Your task to perform on an android device: Search for "amazon basics triple a" on target, select the first entry, and add it to the cart. Image 0: 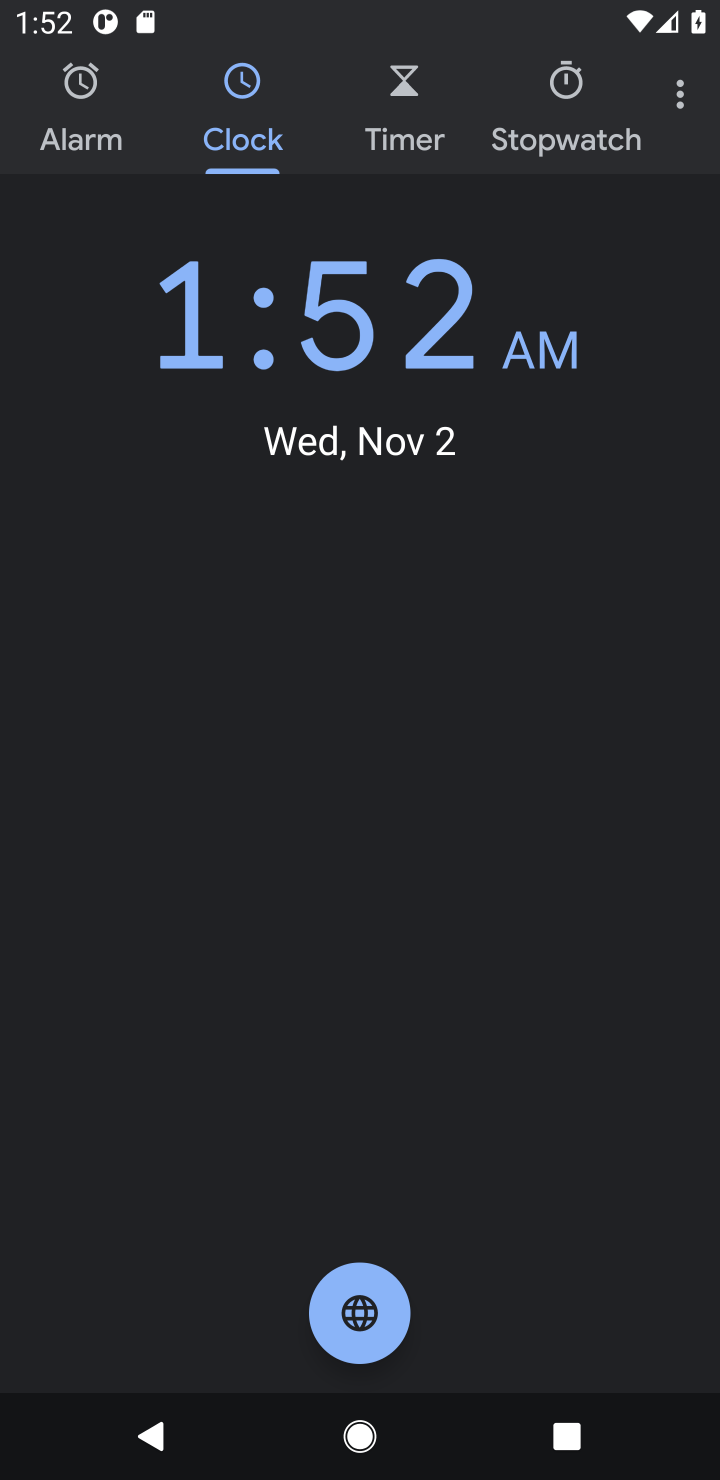
Step 0: press home button
Your task to perform on an android device: Search for "amazon basics triple a" on target, select the first entry, and add it to the cart. Image 1: 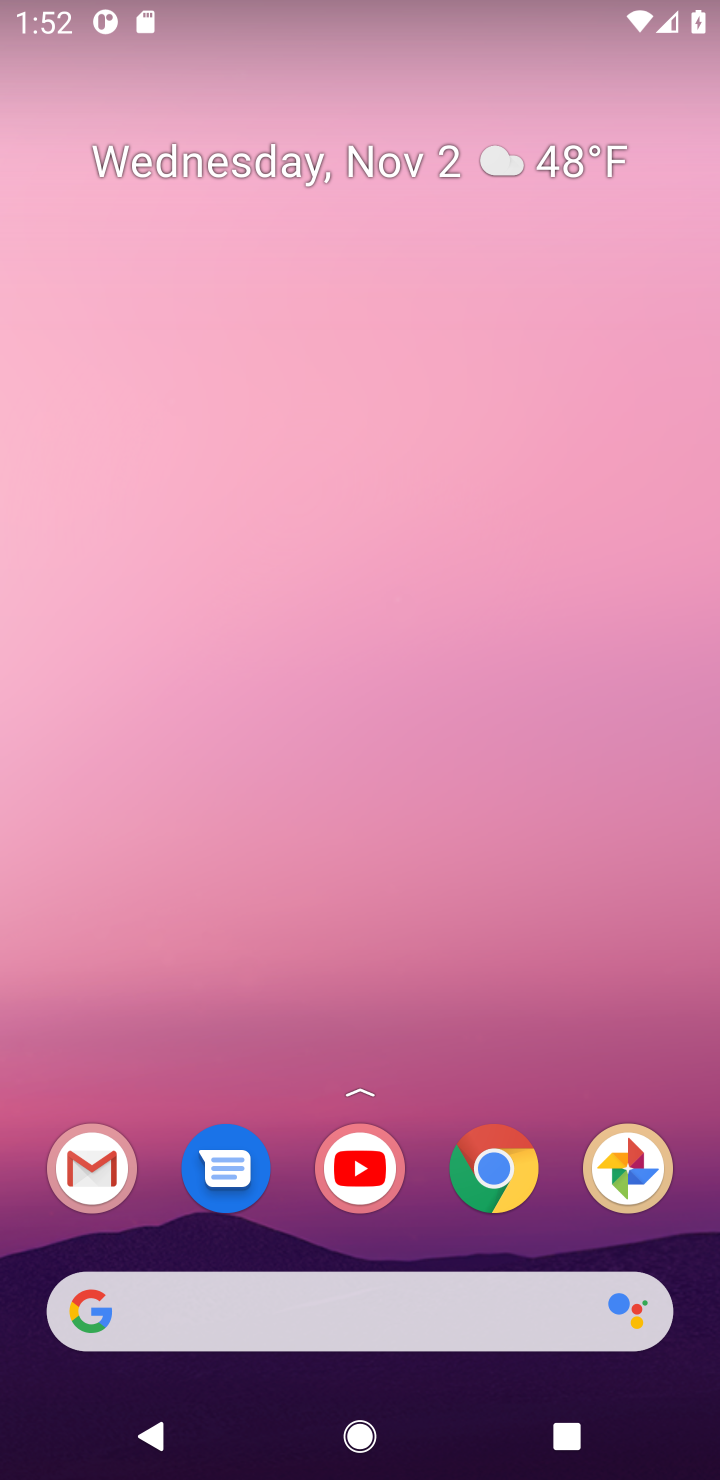
Step 1: click (467, 1292)
Your task to perform on an android device: Search for "amazon basics triple a" on target, select the first entry, and add it to the cart. Image 2: 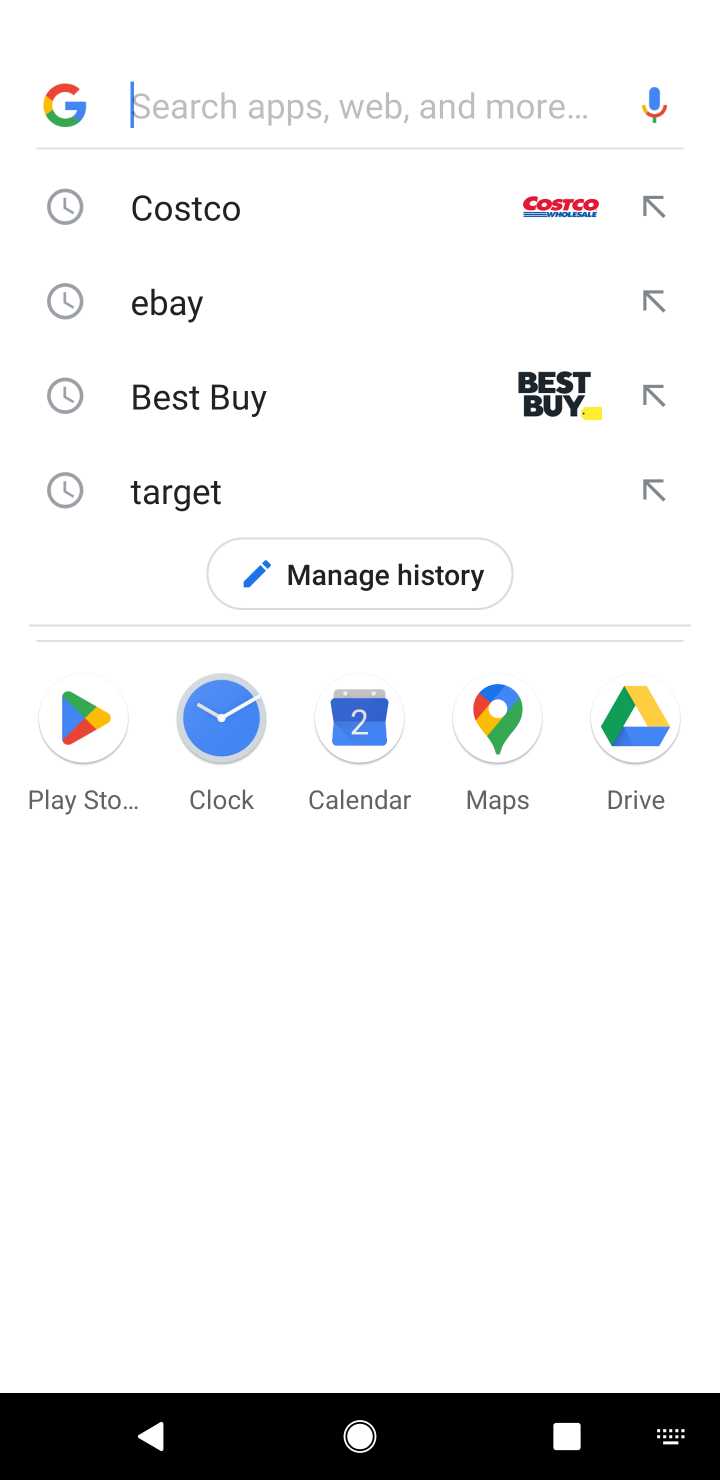
Step 2: drag from (438, 1266) to (344, 1171)
Your task to perform on an android device: Search for "amazon basics triple a" on target, select the first entry, and add it to the cart. Image 3: 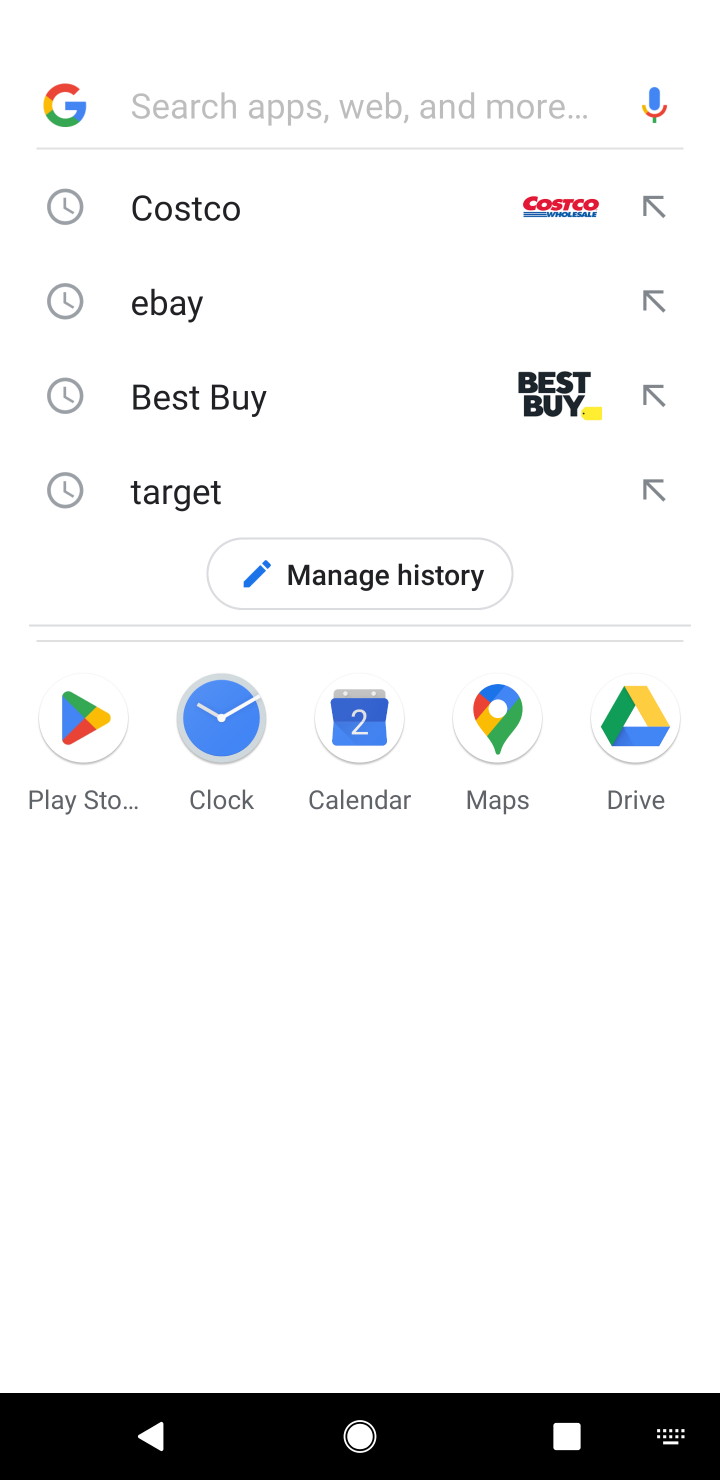
Step 3: type "amazon"
Your task to perform on an android device: Search for "amazon basics triple a" on target, select the first entry, and add it to the cart. Image 4: 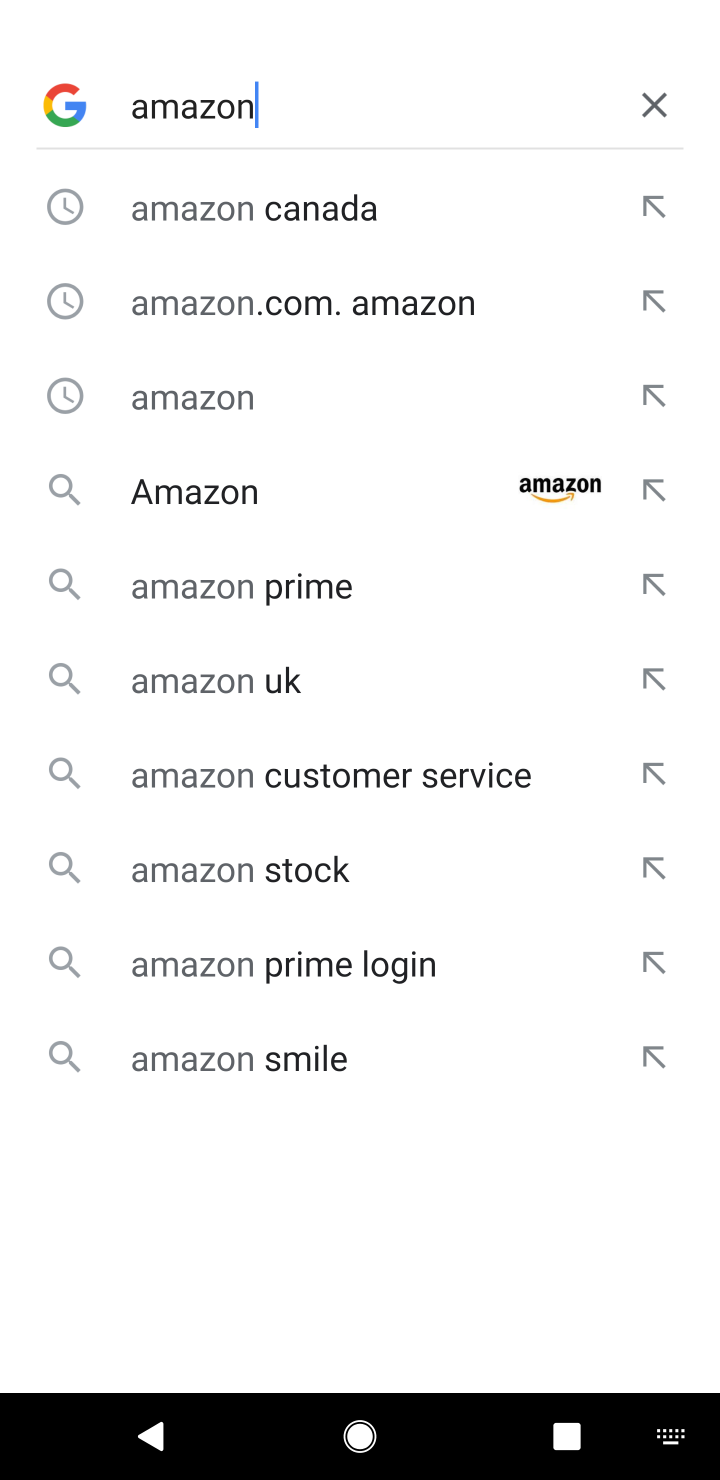
Step 4: click (338, 471)
Your task to perform on an android device: Search for "amazon basics triple a" on target, select the first entry, and add it to the cart. Image 5: 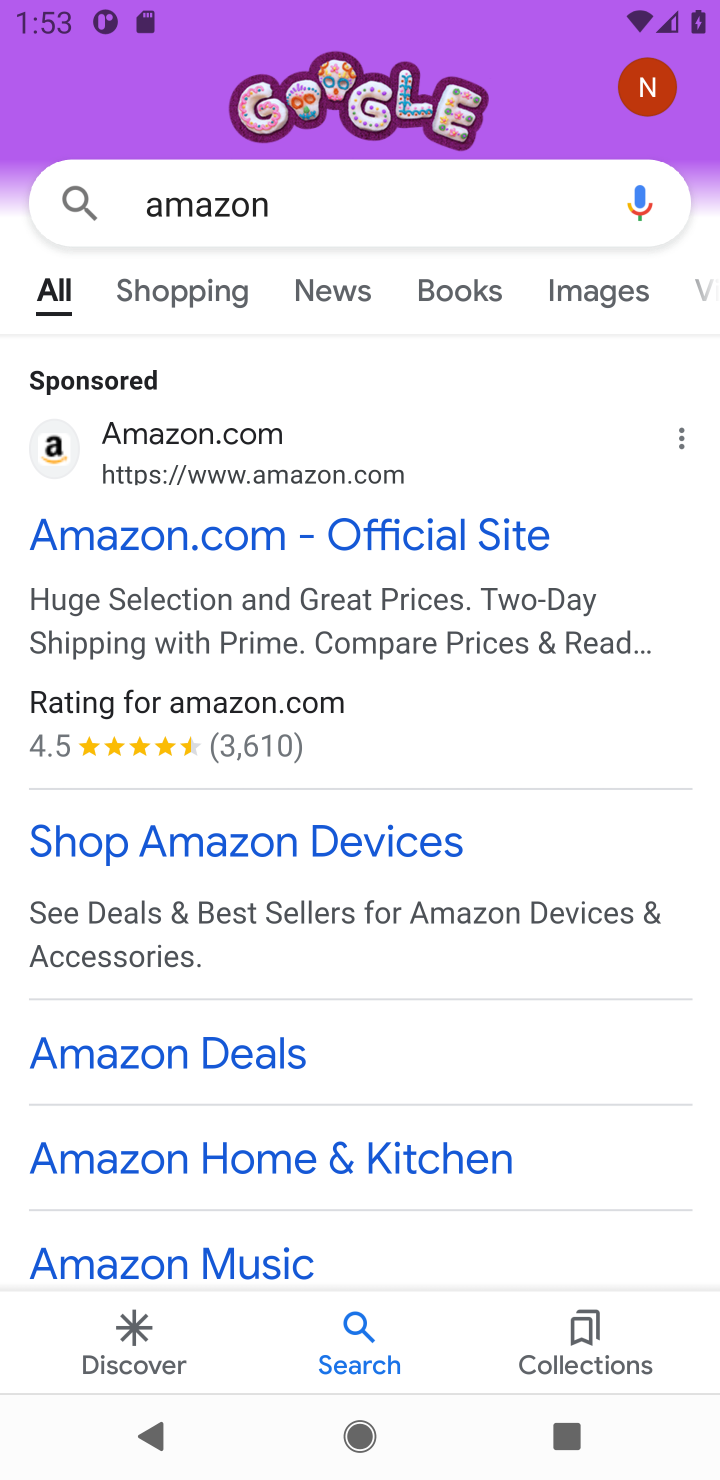
Step 5: click (243, 431)
Your task to perform on an android device: Search for "amazon basics triple a" on target, select the first entry, and add it to the cart. Image 6: 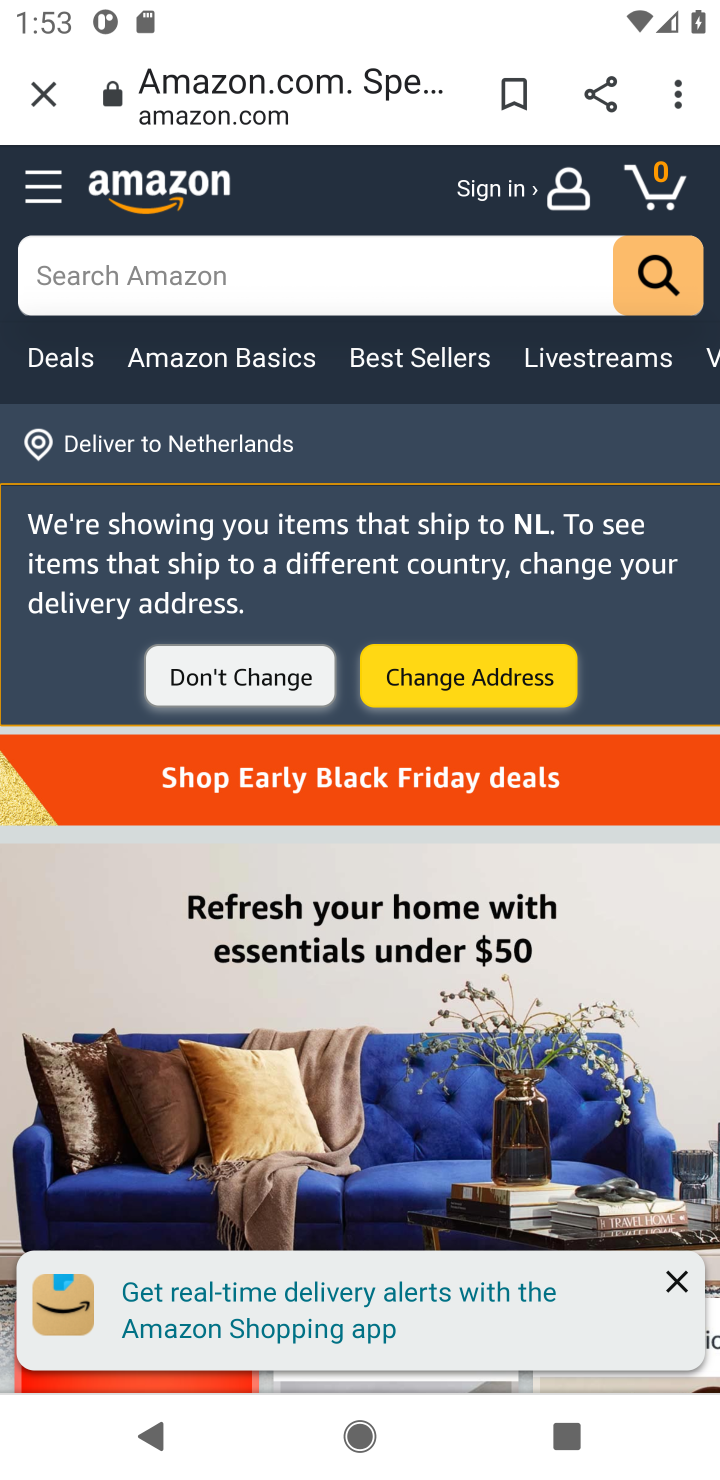
Step 6: click (47, 99)
Your task to perform on an android device: Search for "amazon basics triple a" on target, select the first entry, and add it to the cart. Image 7: 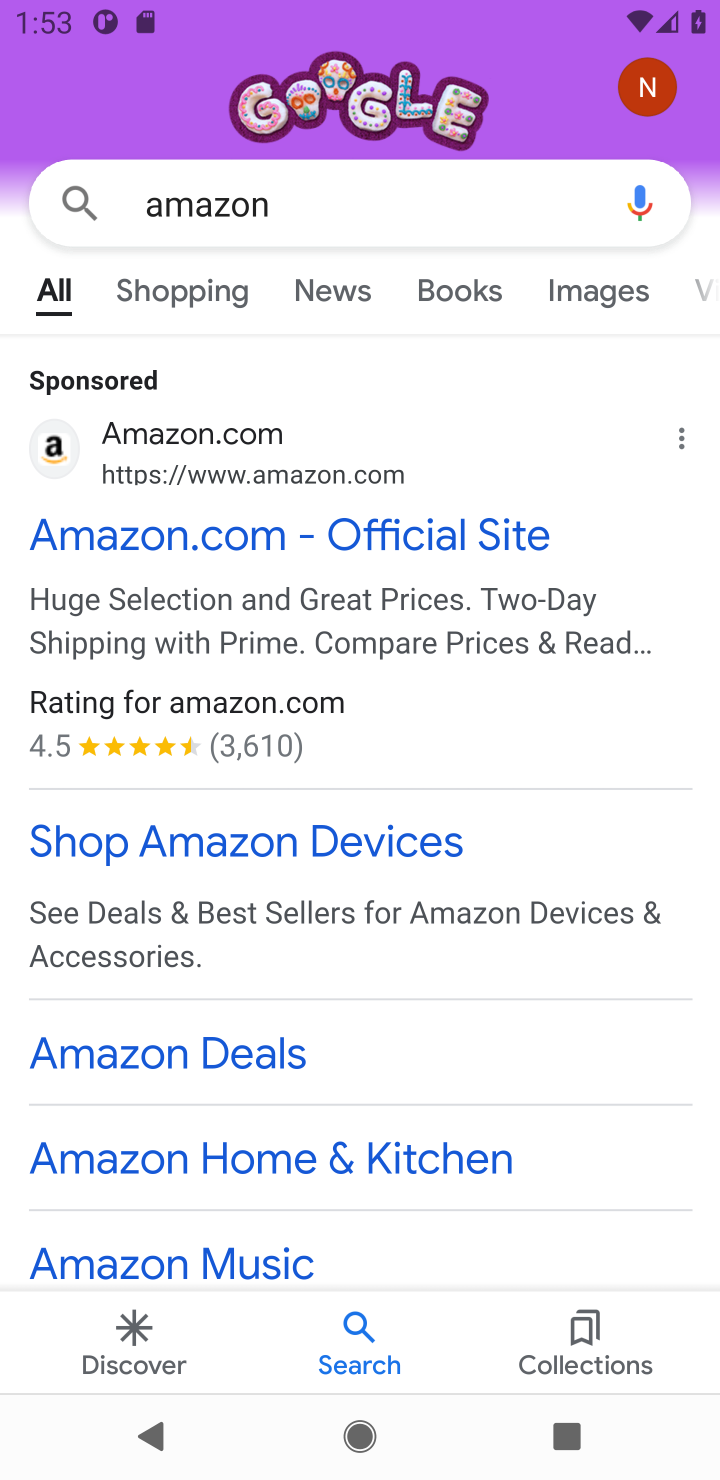
Step 7: click (449, 217)
Your task to perform on an android device: Search for "amazon basics triple a" on target, select the first entry, and add it to the cart. Image 8: 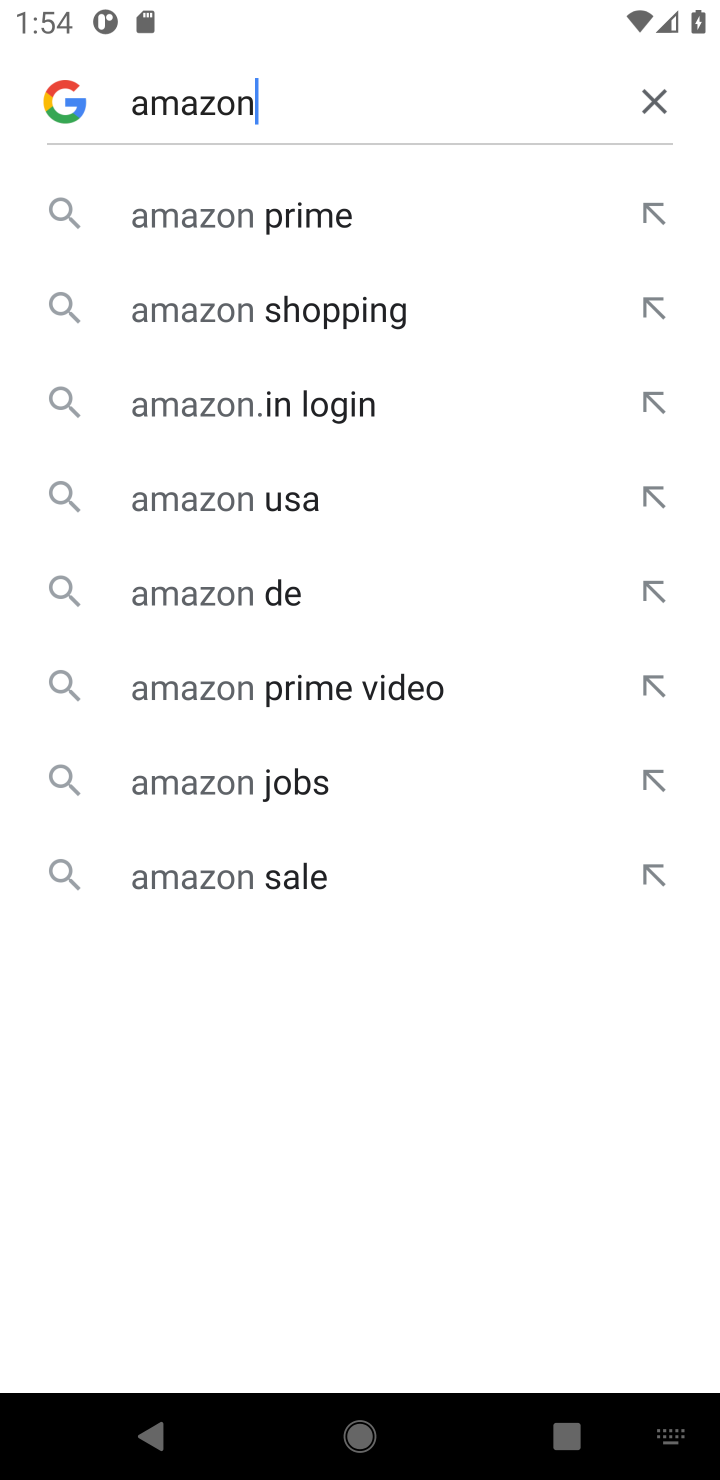
Step 8: click (664, 107)
Your task to perform on an android device: Search for "amazon basics triple a" on target, select the first entry, and add it to the cart. Image 9: 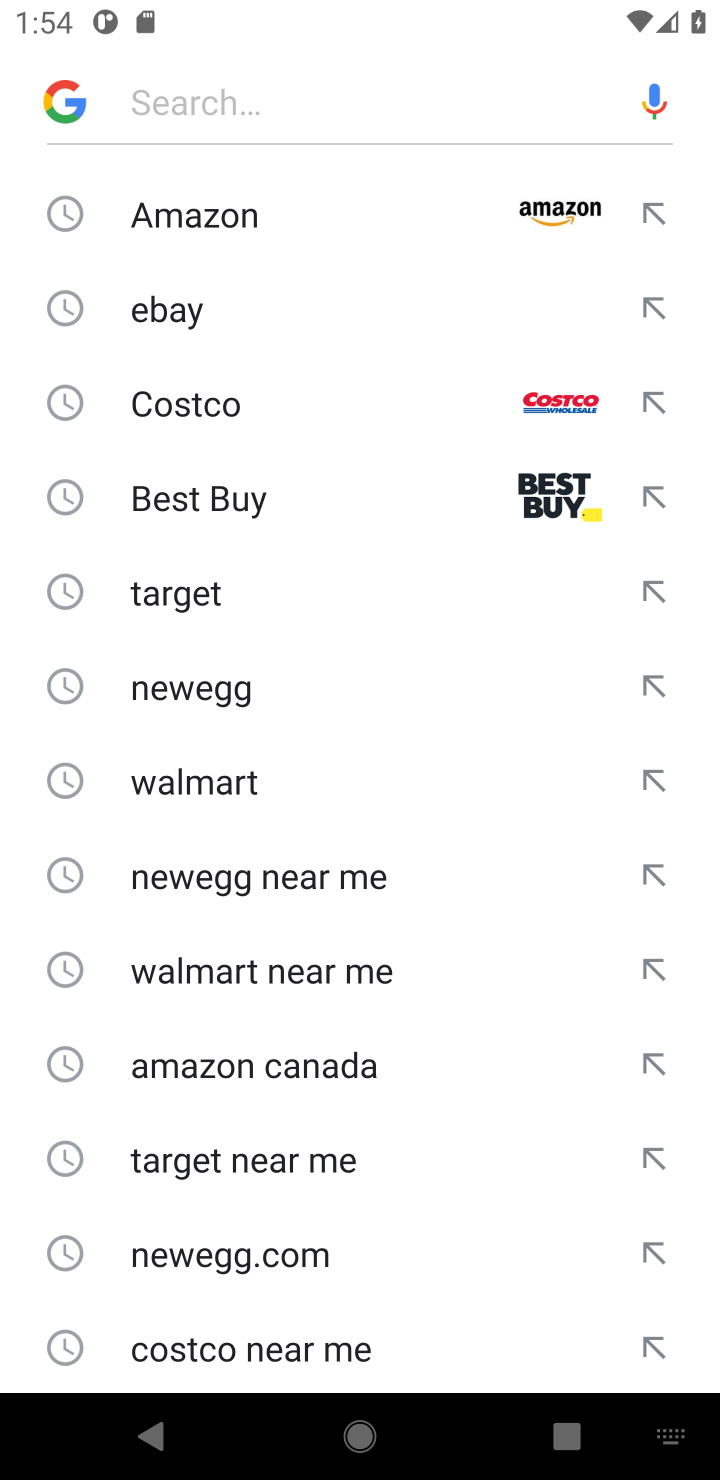
Step 9: type "target"
Your task to perform on an android device: Search for "amazon basics triple a" on target, select the first entry, and add it to the cart. Image 10: 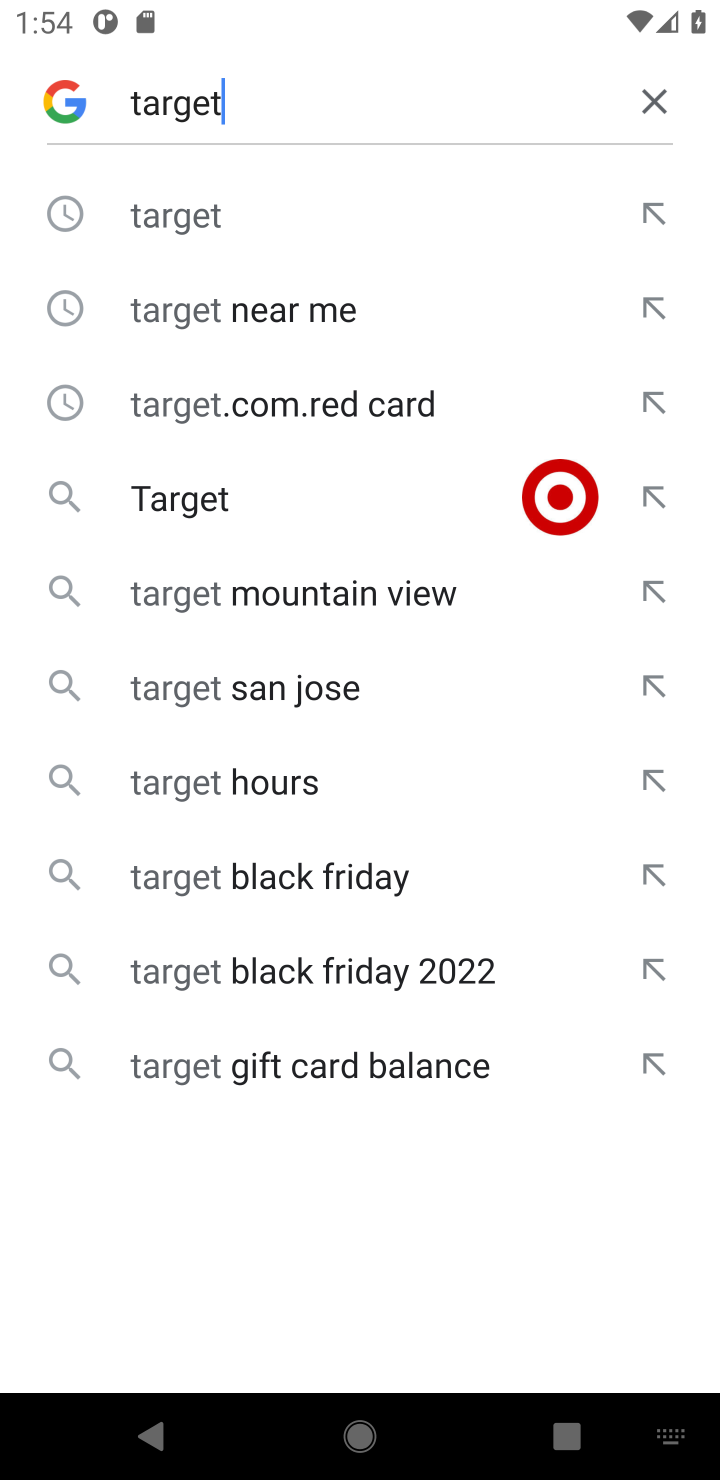
Step 10: click (365, 497)
Your task to perform on an android device: Search for "amazon basics triple a" on target, select the first entry, and add it to the cart. Image 11: 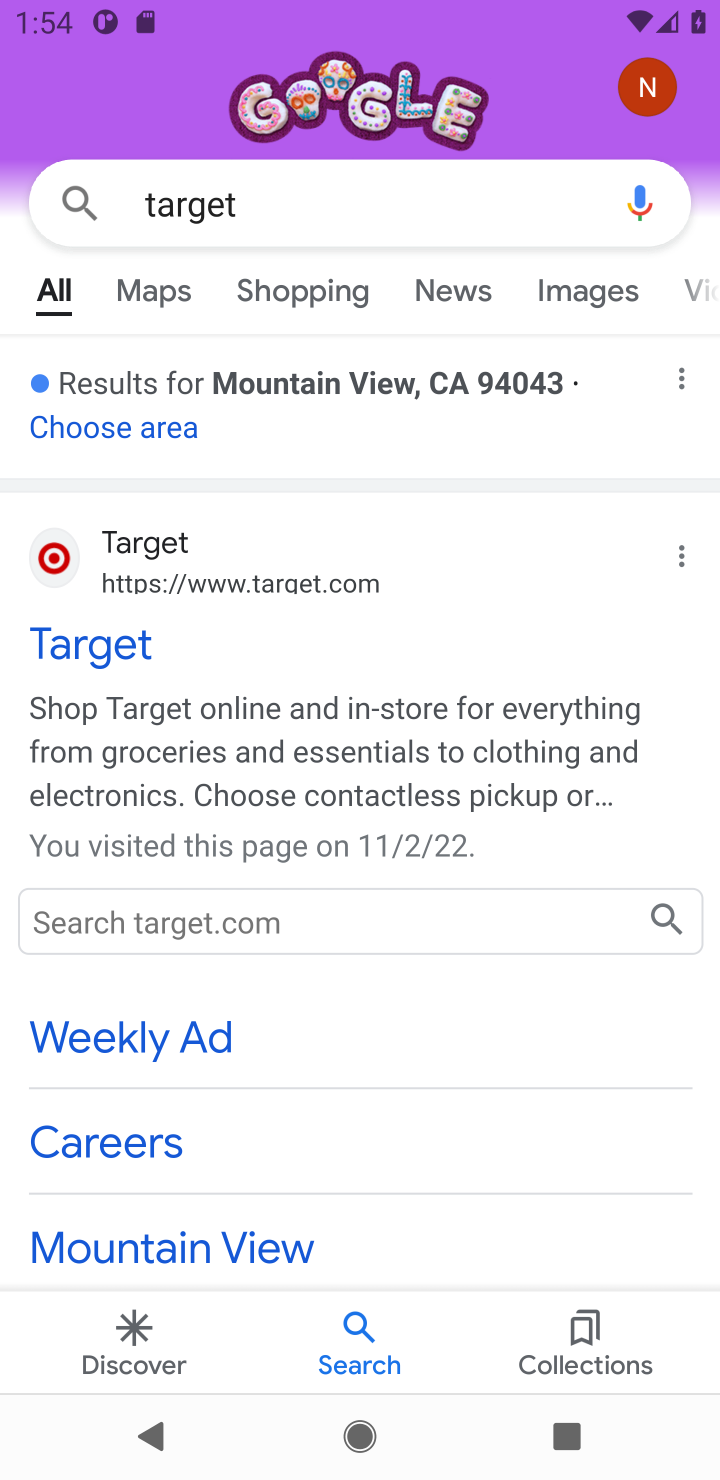
Step 11: click (153, 559)
Your task to perform on an android device: Search for "amazon basics triple a" on target, select the first entry, and add it to the cart. Image 12: 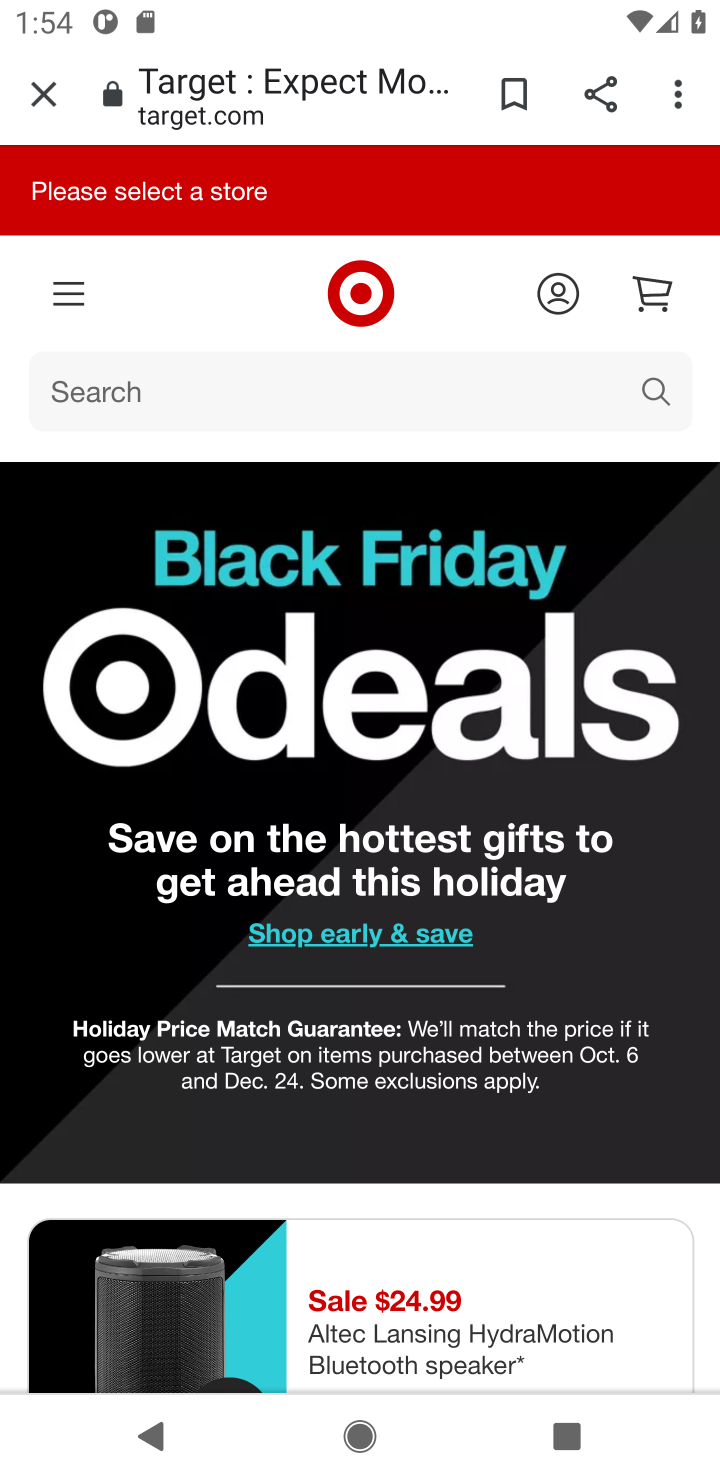
Step 12: click (461, 397)
Your task to perform on an android device: Search for "amazon basics triple a" on target, select the first entry, and add it to the cart. Image 13: 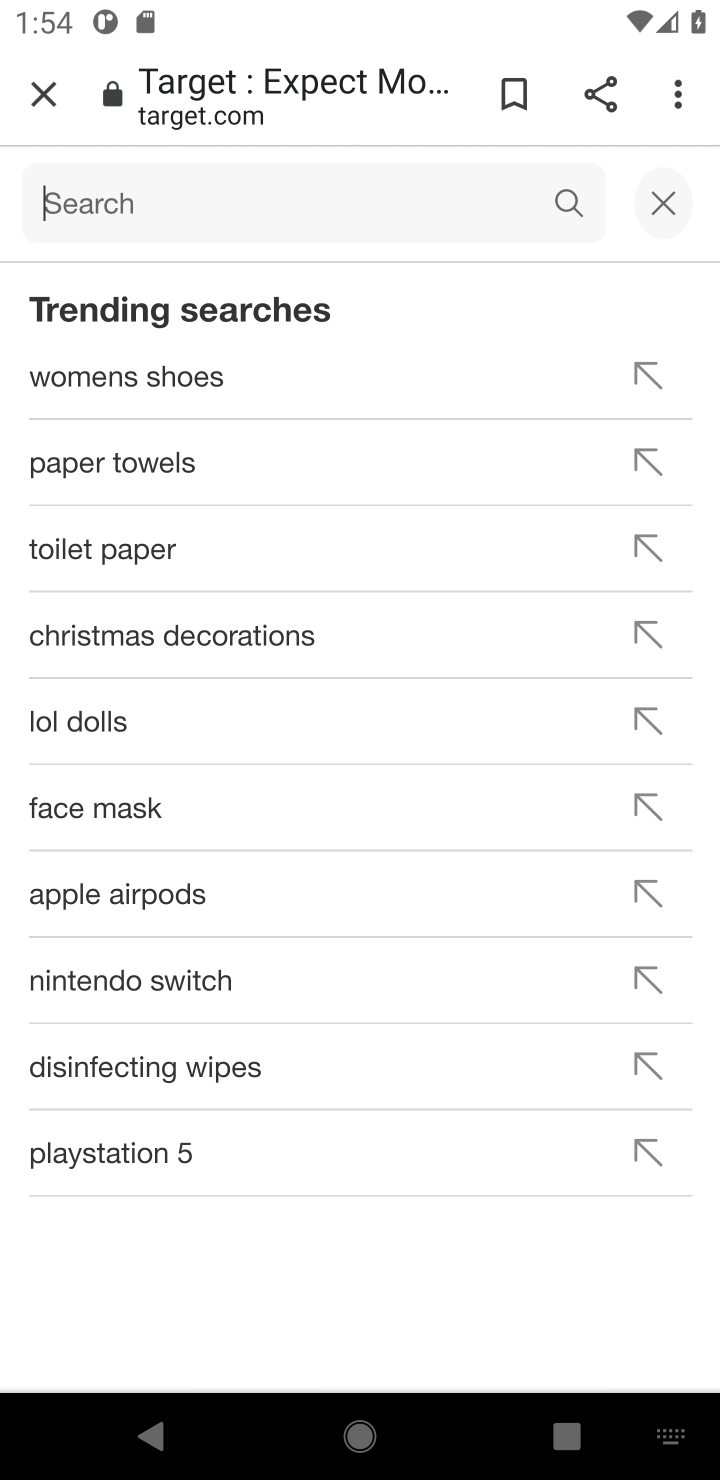
Step 13: type "amazon basics triple a"
Your task to perform on an android device: Search for "amazon basics triple a" on target, select the first entry, and add it to the cart. Image 14: 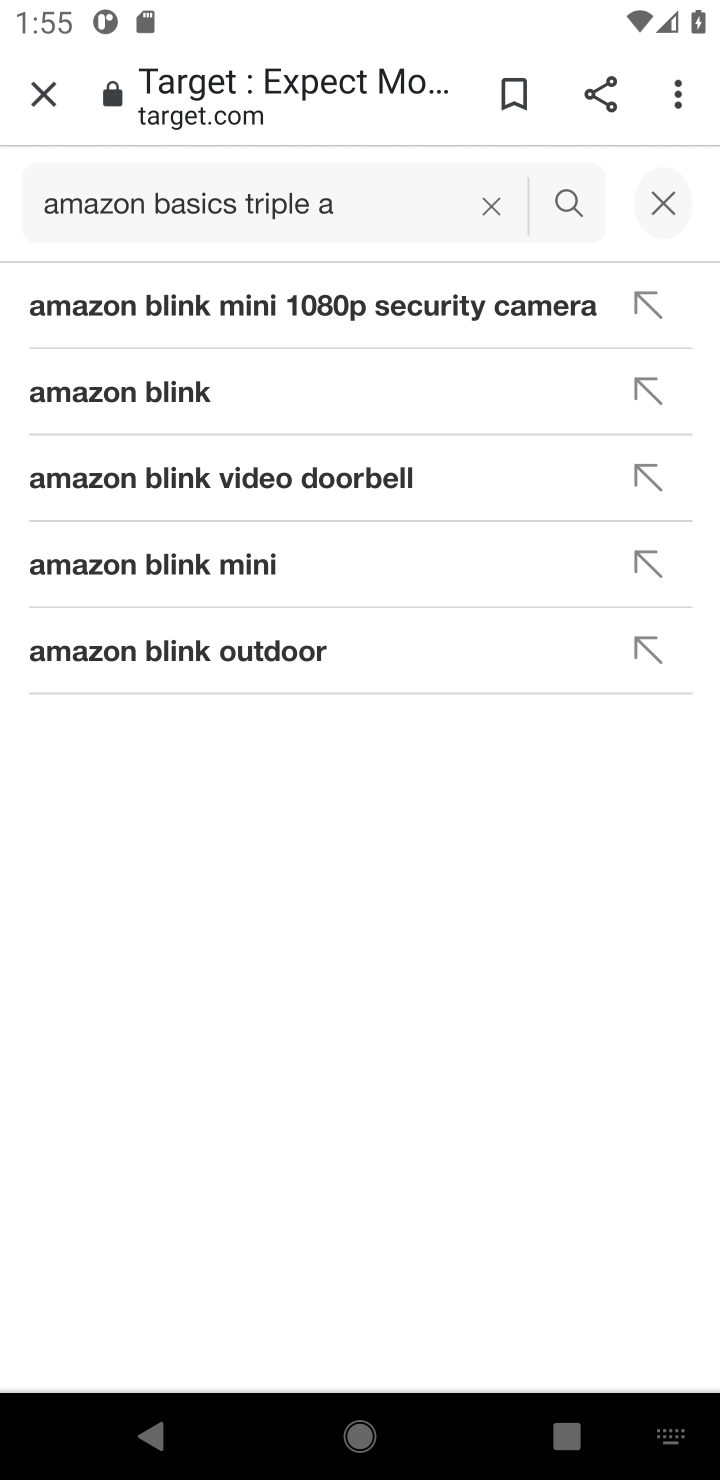
Step 14: task complete